Your task to perform on an android device: Open Maps and search for coffee Image 0: 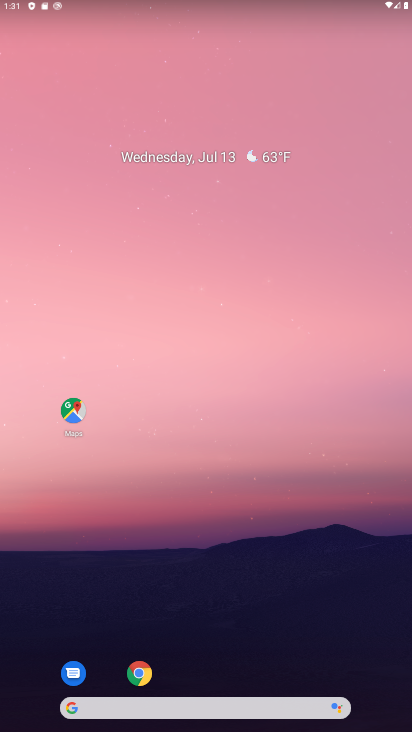
Step 0: drag from (340, 614) to (237, 207)
Your task to perform on an android device: Open Maps and search for coffee Image 1: 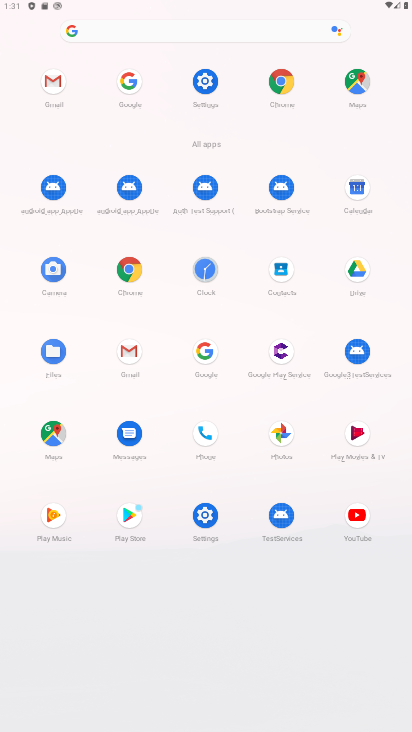
Step 1: click (352, 78)
Your task to perform on an android device: Open Maps and search for coffee Image 2: 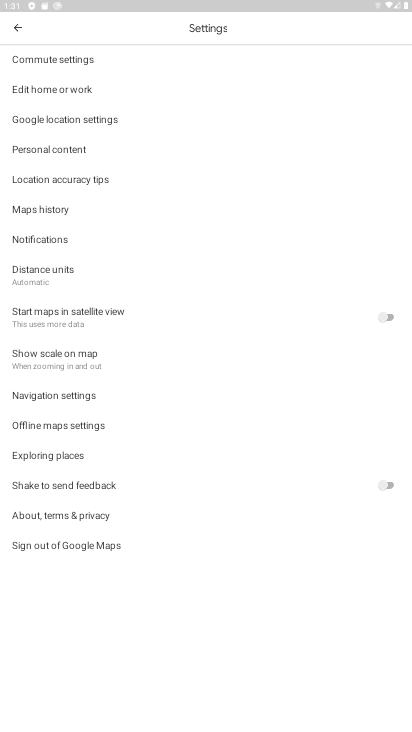
Step 2: click (14, 26)
Your task to perform on an android device: Open Maps and search for coffee Image 3: 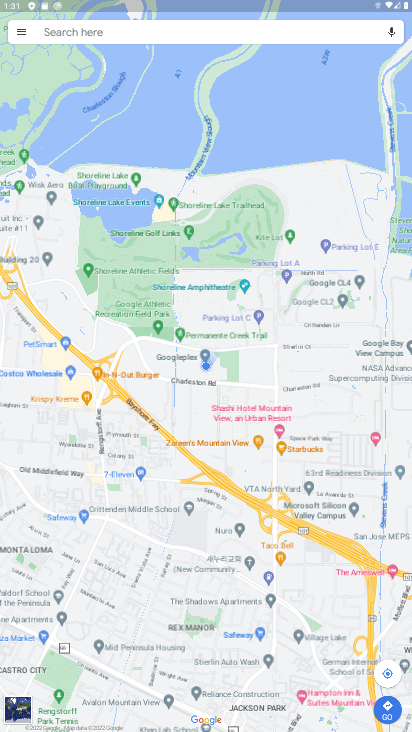
Step 3: click (115, 26)
Your task to perform on an android device: Open Maps and search for coffee Image 4: 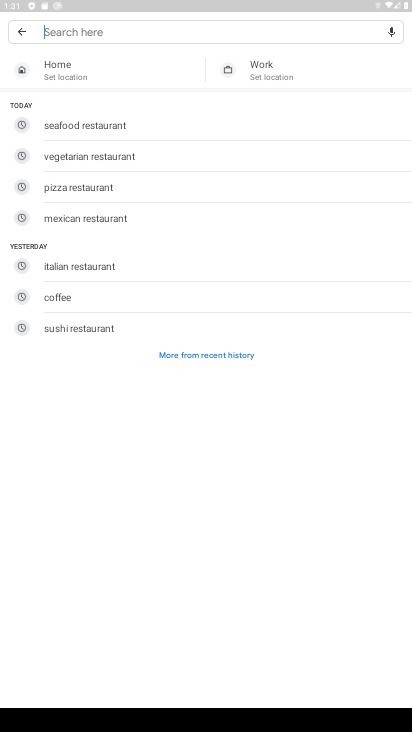
Step 4: click (70, 298)
Your task to perform on an android device: Open Maps and search for coffee Image 5: 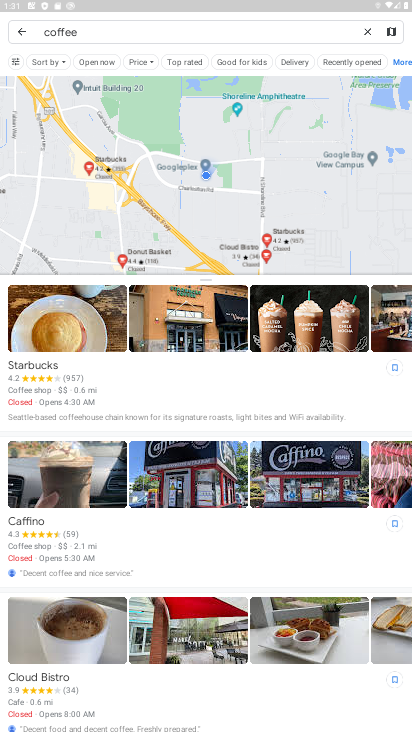
Step 5: task complete